Your task to perform on an android device: change the clock display to show seconds Image 0: 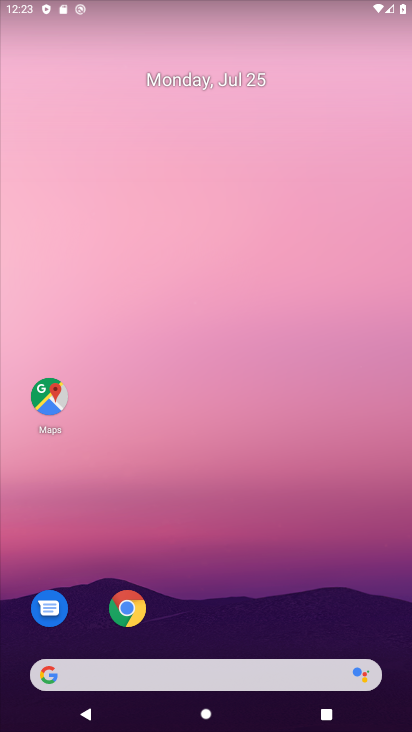
Step 0: drag from (223, 601) to (285, 51)
Your task to perform on an android device: change the clock display to show seconds Image 1: 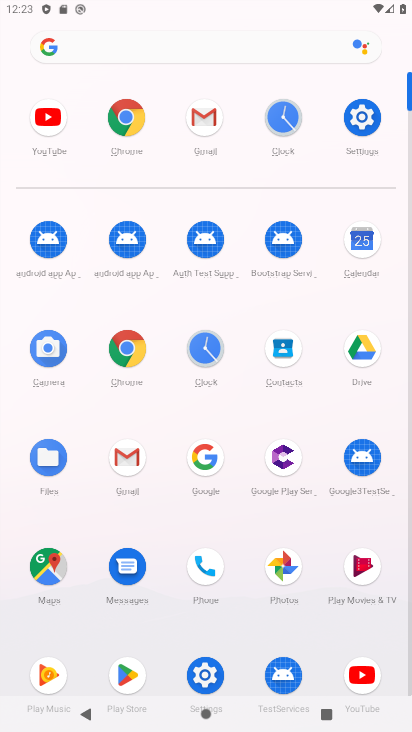
Step 1: click (216, 353)
Your task to perform on an android device: change the clock display to show seconds Image 2: 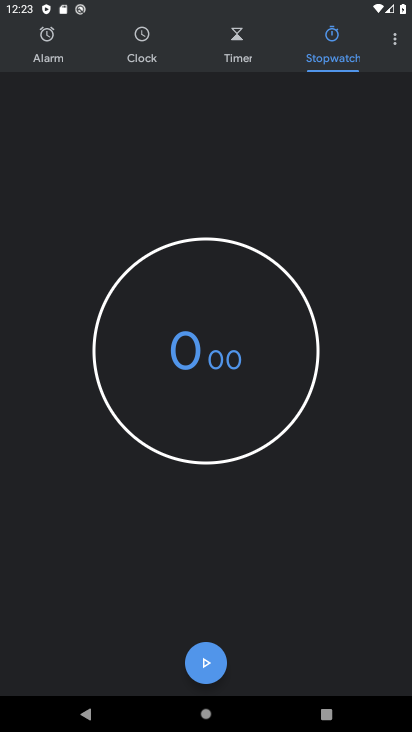
Step 2: click (400, 43)
Your task to perform on an android device: change the clock display to show seconds Image 3: 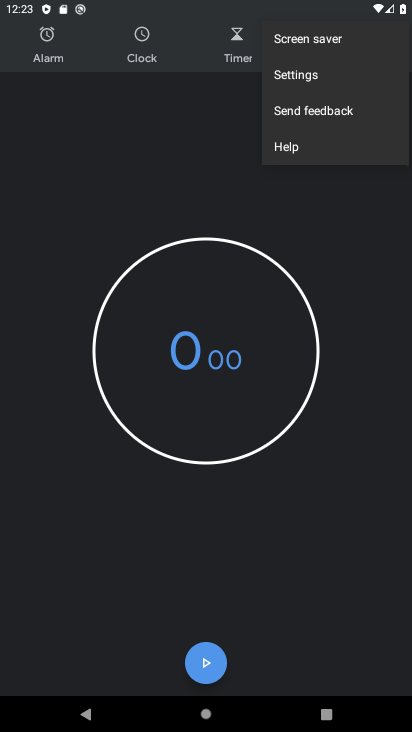
Step 3: click (325, 77)
Your task to perform on an android device: change the clock display to show seconds Image 4: 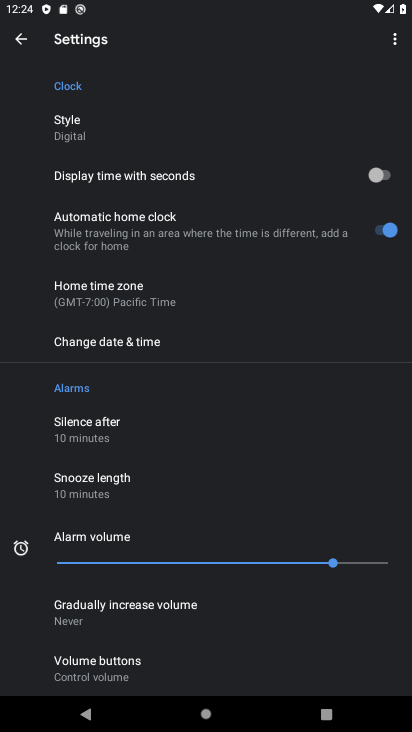
Step 4: click (370, 182)
Your task to perform on an android device: change the clock display to show seconds Image 5: 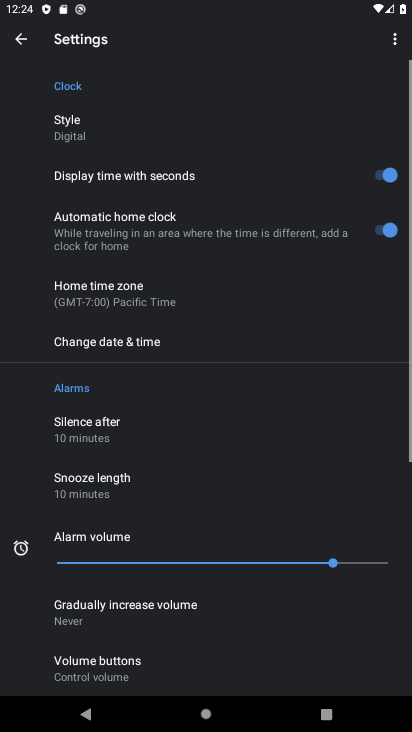
Step 5: task complete